Your task to perform on an android device: Open privacy settings Image 0: 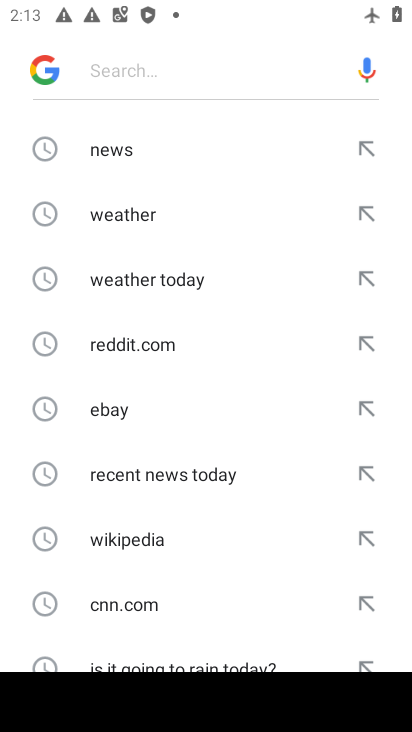
Step 0: press back button
Your task to perform on an android device: Open privacy settings Image 1: 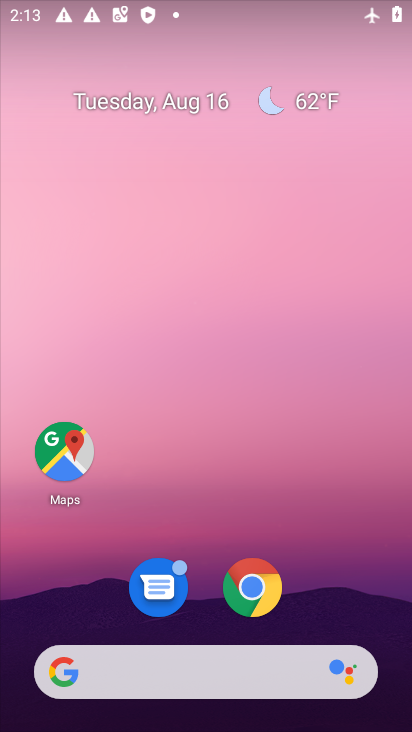
Step 1: drag from (76, 591) to (282, 5)
Your task to perform on an android device: Open privacy settings Image 2: 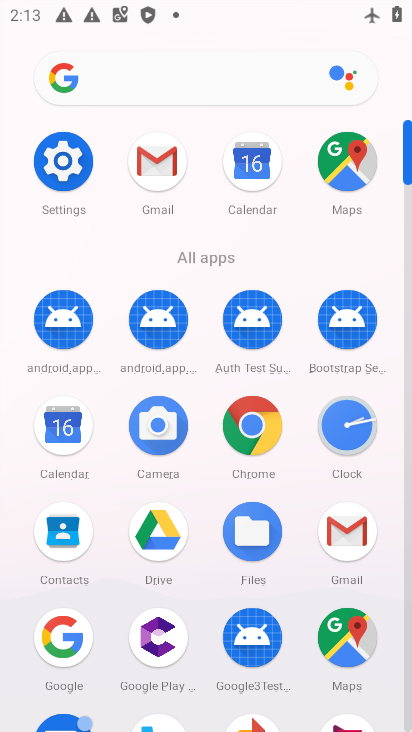
Step 2: click (60, 159)
Your task to perform on an android device: Open privacy settings Image 3: 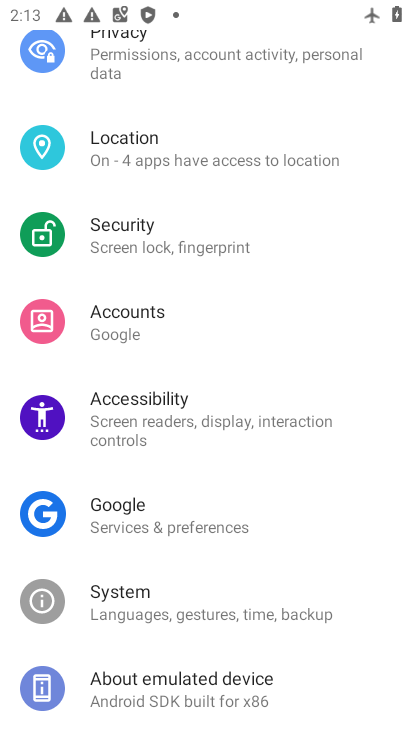
Step 3: click (142, 39)
Your task to perform on an android device: Open privacy settings Image 4: 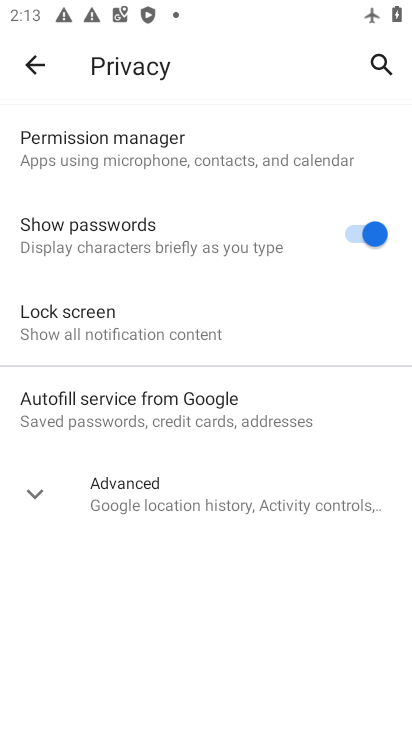
Step 4: task complete